Your task to perform on an android device: Is it going to rain tomorrow? Image 0: 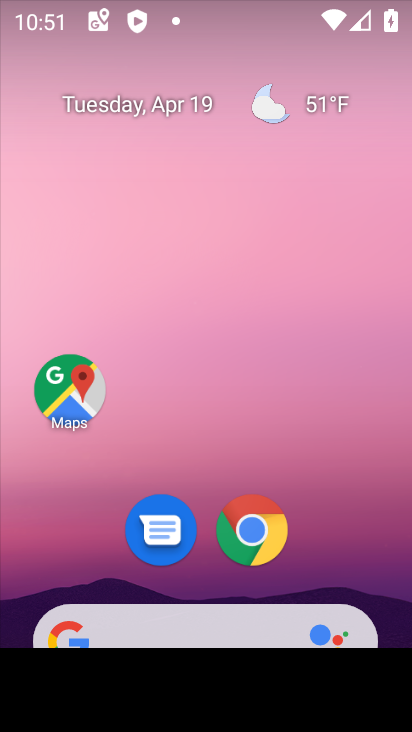
Step 0: click (323, 100)
Your task to perform on an android device: Is it going to rain tomorrow? Image 1: 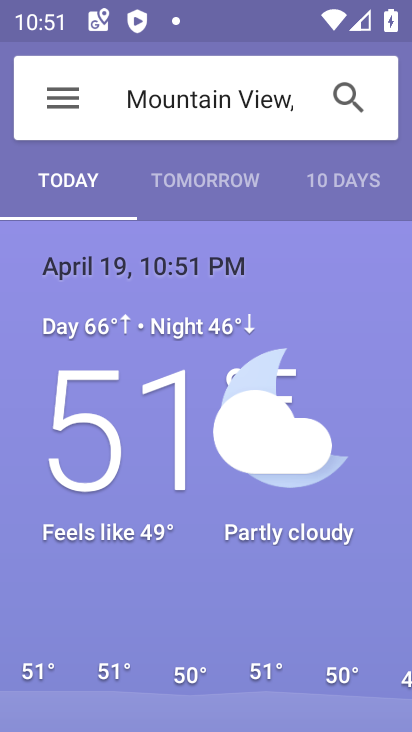
Step 1: click (224, 172)
Your task to perform on an android device: Is it going to rain tomorrow? Image 2: 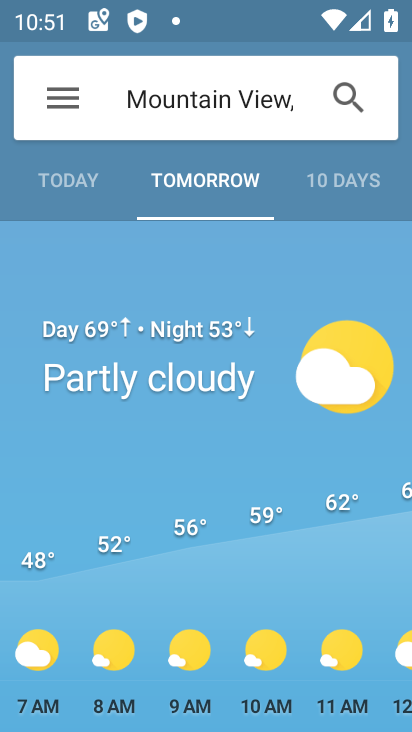
Step 2: task complete